Your task to perform on an android device: turn off translation in the chrome app Image 0: 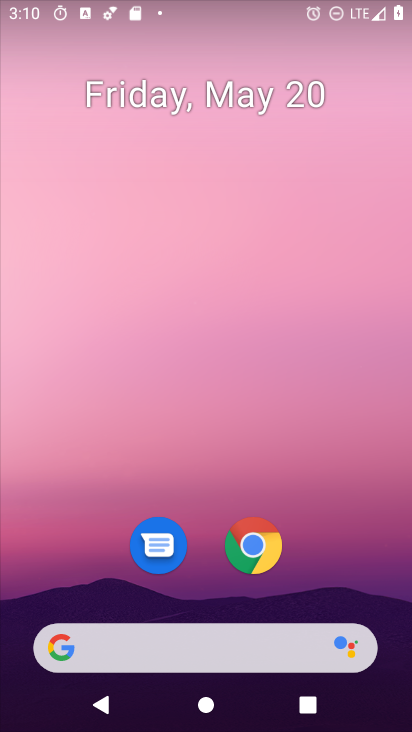
Step 0: drag from (262, 601) to (279, 15)
Your task to perform on an android device: turn off translation in the chrome app Image 1: 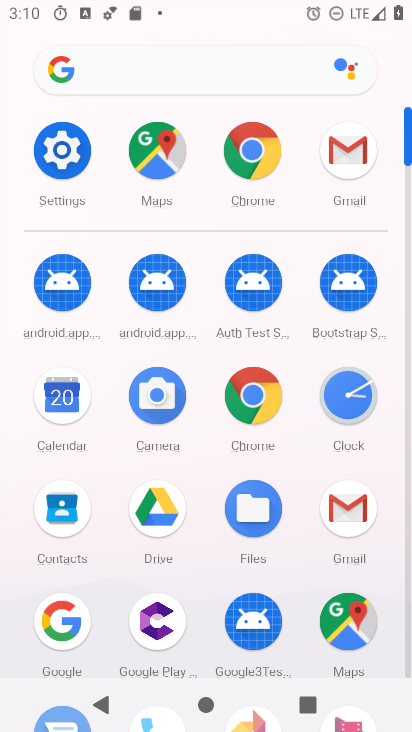
Step 1: click (275, 400)
Your task to perform on an android device: turn off translation in the chrome app Image 2: 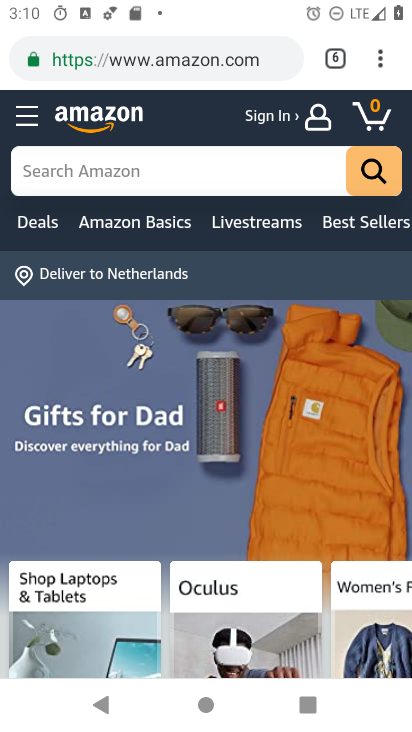
Step 2: drag from (377, 57) to (229, 577)
Your task to perform on an android device: turn off translation in the chrome app Image 3: 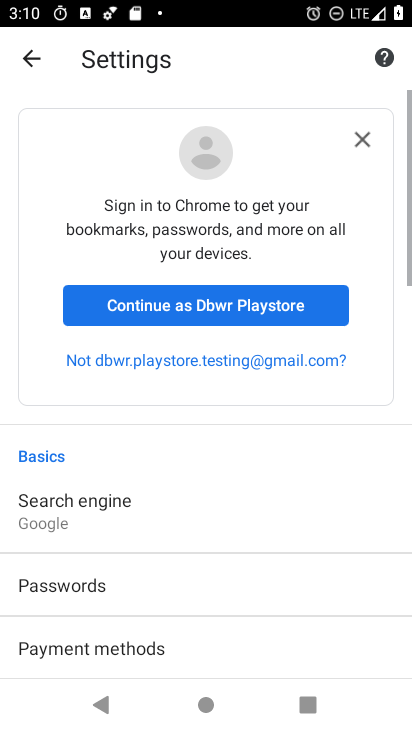
Step 3: drag from (229, 577) to (265, 104)
Your task to perform on an android device: turn off translation in the chrome app Image 4: 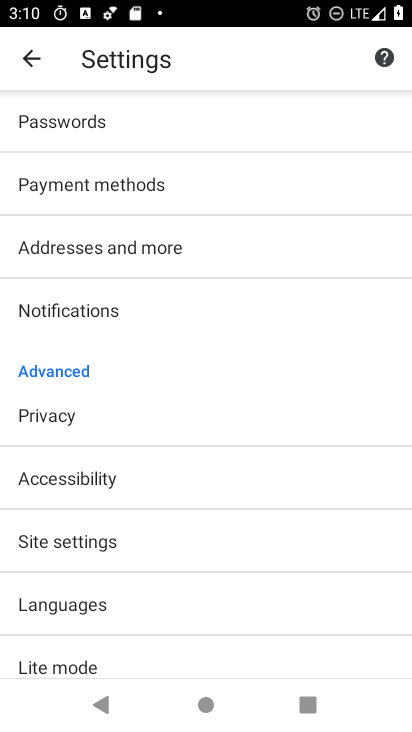
Step 4: click (101, 609)
Your task to perform on an android device: turn off translation in the chrome app Image 5: 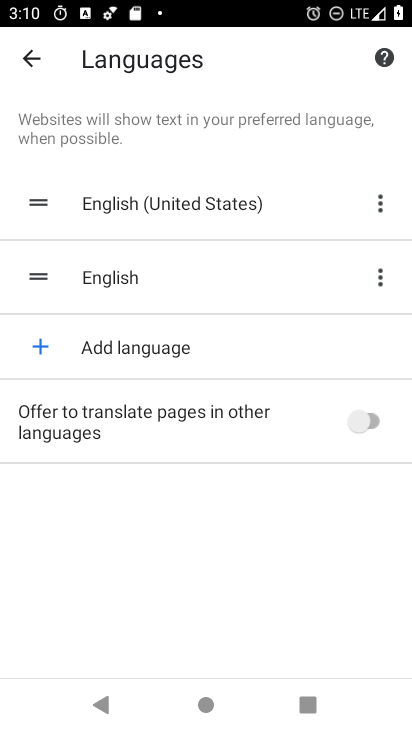
Step 5: task complete